Your task to perform on an android device: search for starred emails in the gmail app Image 0: 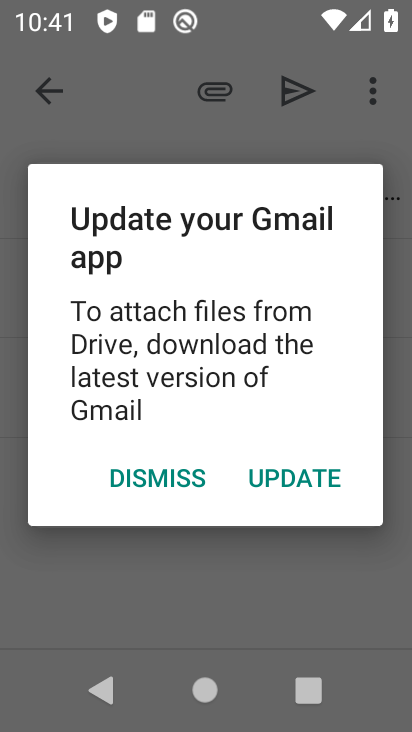
Step 0: press home button
Your task to perform on an android device: search for starred emails in the gmail app Image 1: 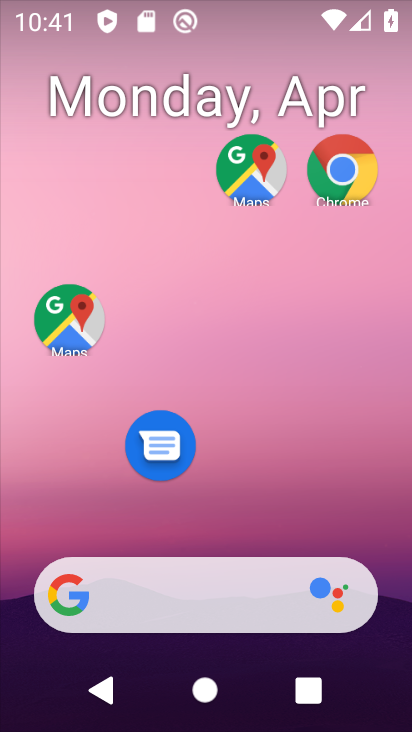
Step 1: drag from (224, 529) to (222, 52)
Your task to perform on an android device: search for starred emails in the gmail app Image 2: 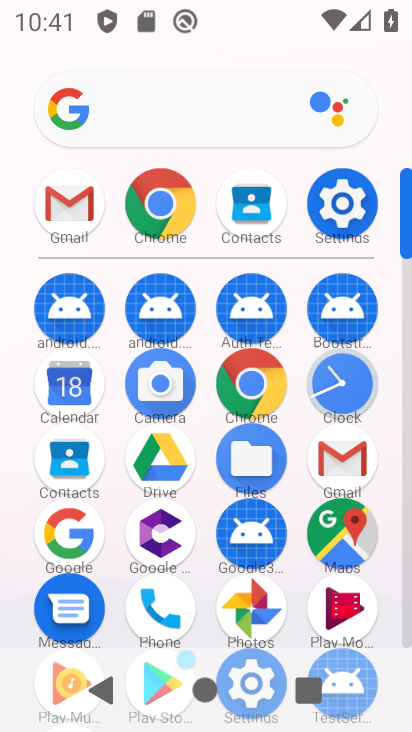
Step 2: click (340, 476)
Your task to perform on an android device: search for starred emails in the gmail app Image 3: 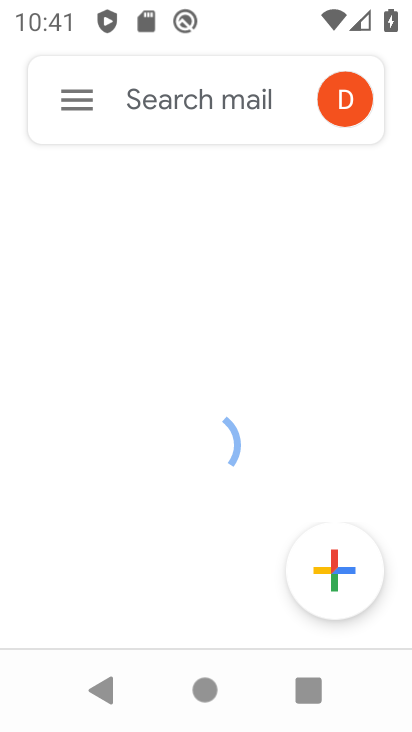
Step 3: click (73, 98)
Your task to perform on an android device: search for starred emails in the gmail app Image 4: 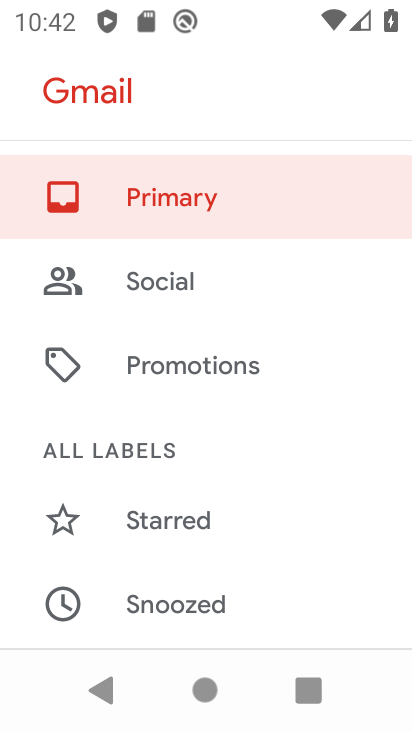
Step 4: click (155, 525)
Your task to perform on an android device: search for starred emails in the gmail app Image 5: 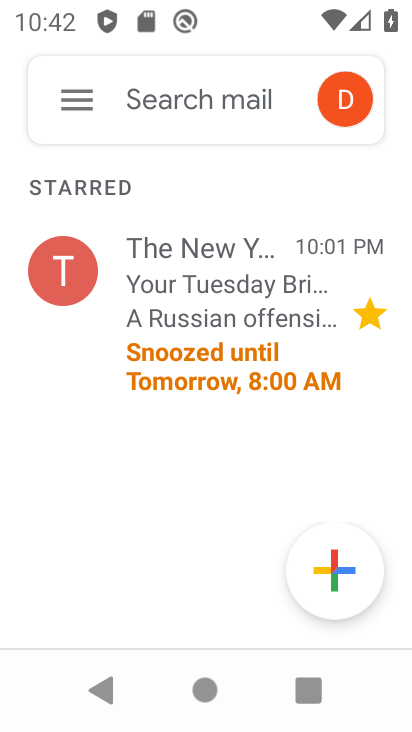
Step 5: task complete